Your task to perform on an android device: uninstall "Google Calendar" Image 0: 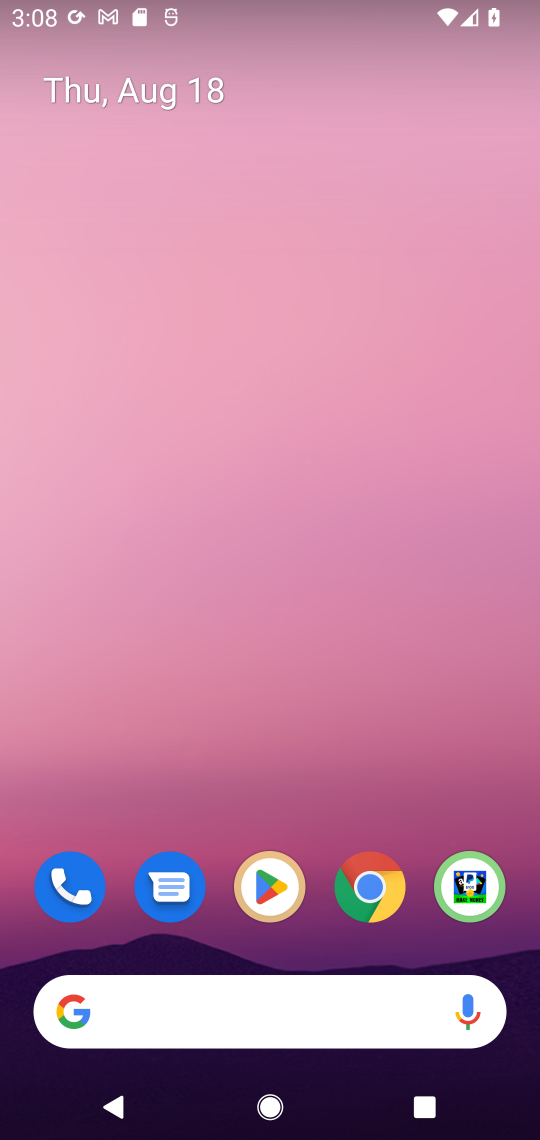
Step 0: click (267, 875)
Your task to perform on an android device: uninstall "Google Calendar" Image 1: 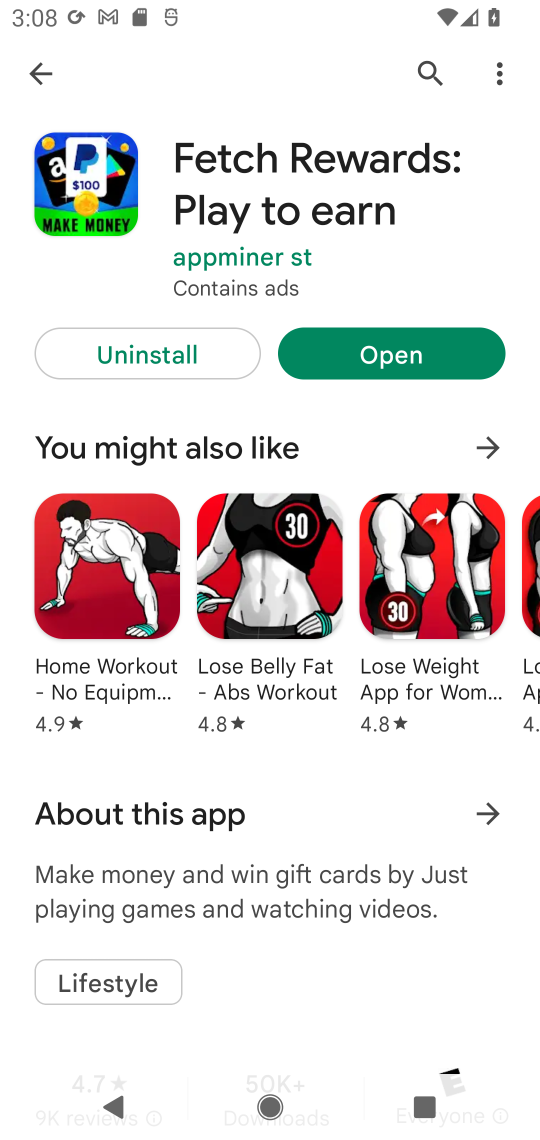
Step 1: click (422, 72)
Your task to perform on an android device: uninstall "Google Calendar" Image 2: 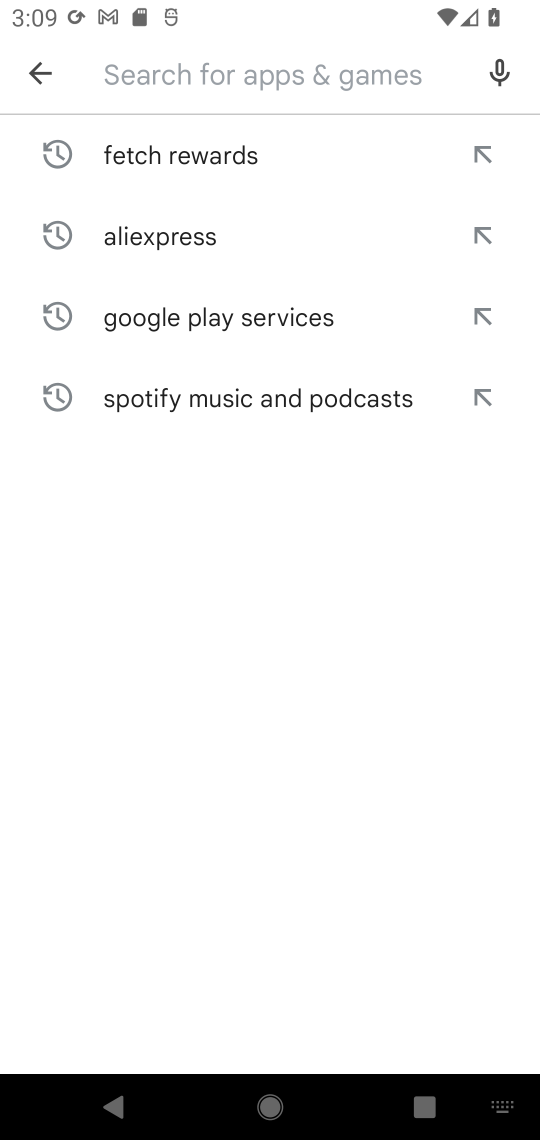
Step 2: type "Google Calendar"
Your task to perform on an android device: uninstall "Google Calendar" Image 3: 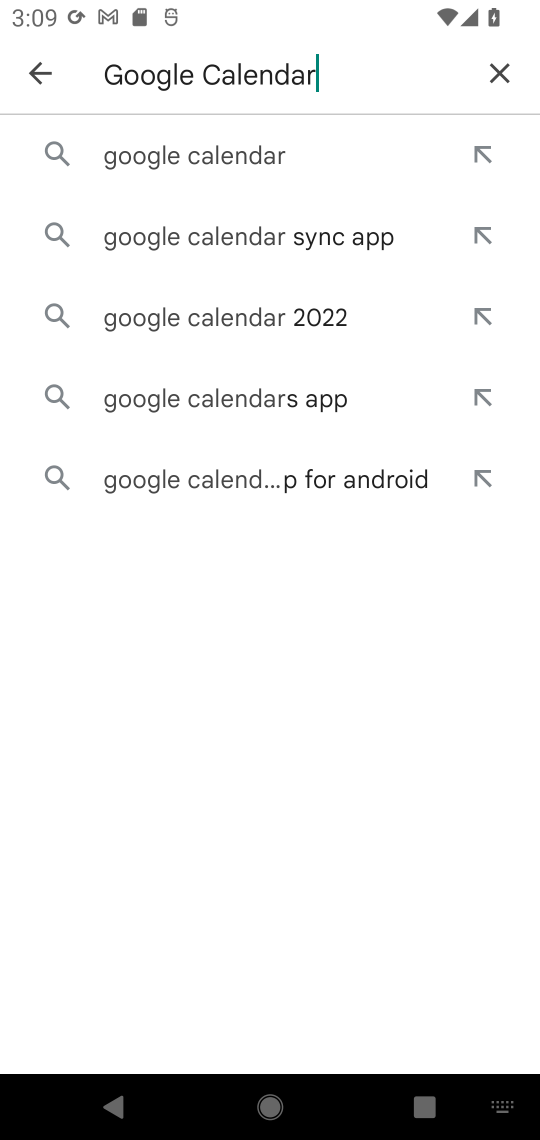
Step 3: click (187, 148)
Your task to perform on an android device: uninstall "Google Calendar" Image 4: 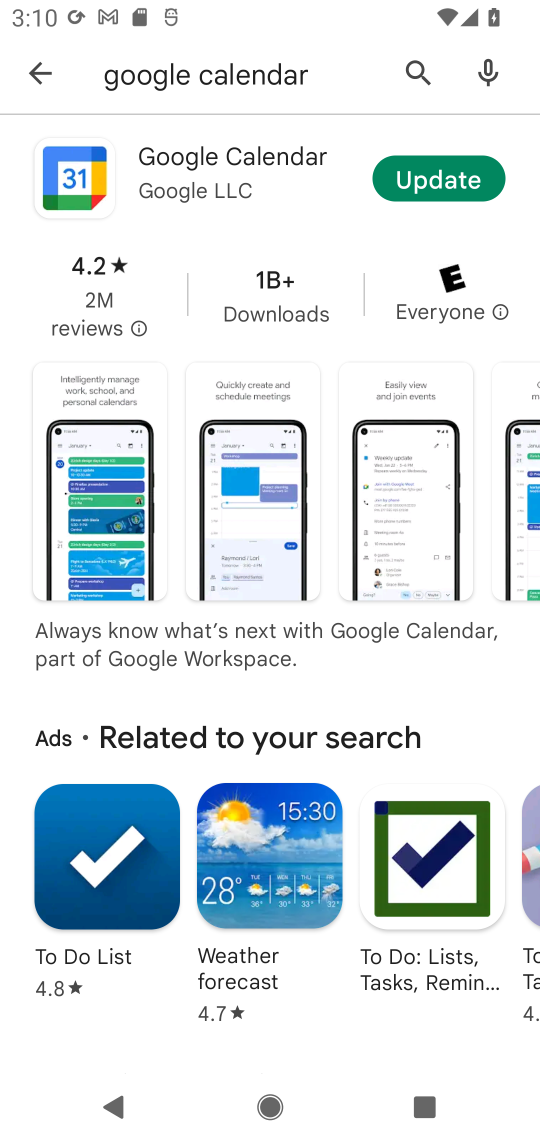
Step 4: task complete